Your task to perform on an android device: Open network settings Image 0: 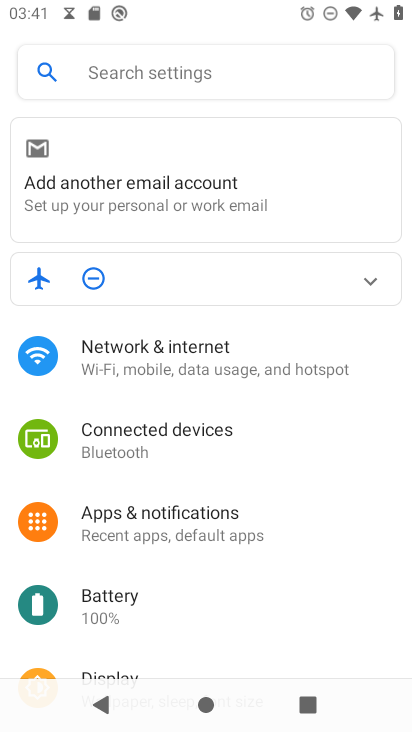
Step 0: press home button
Your task to perform on an android device: Open network settings Image 1: 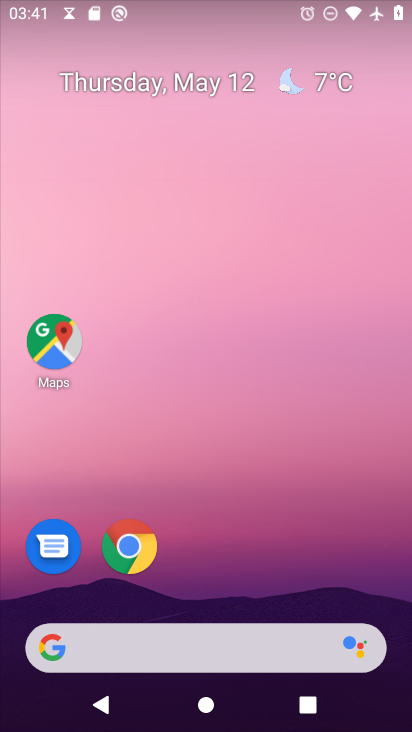
Step 1: drag from (143, 594) to (195, 184)
Your task to perform on an android device: Open network settings Image 2: 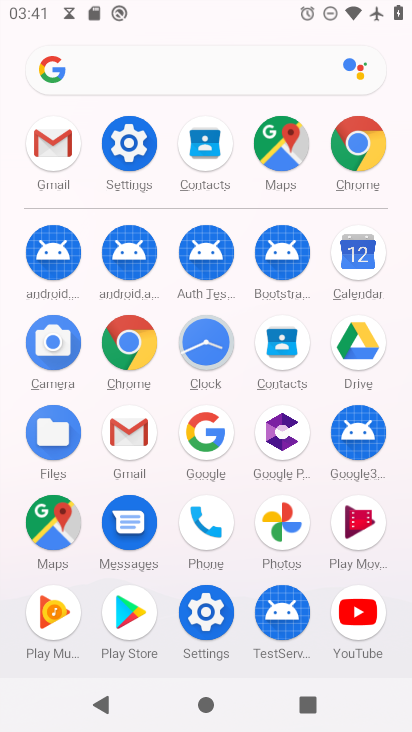
Step 2: click (130, 151)
Your task to perform on an android device: Open network settings Image 3: 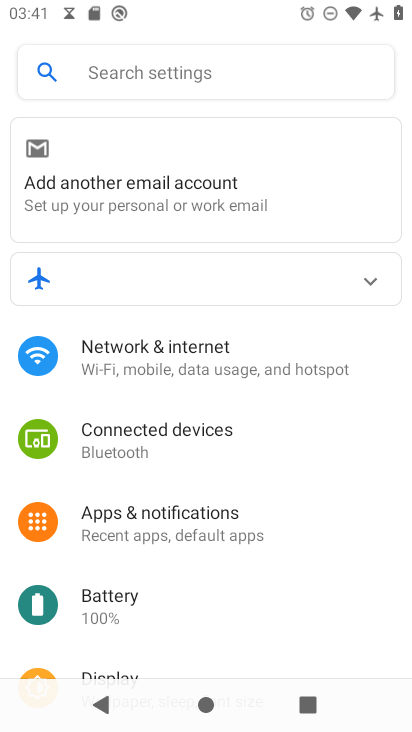
Step 3: click (169, 352)
Your task to perform on an android device: Open network settings Image 4: 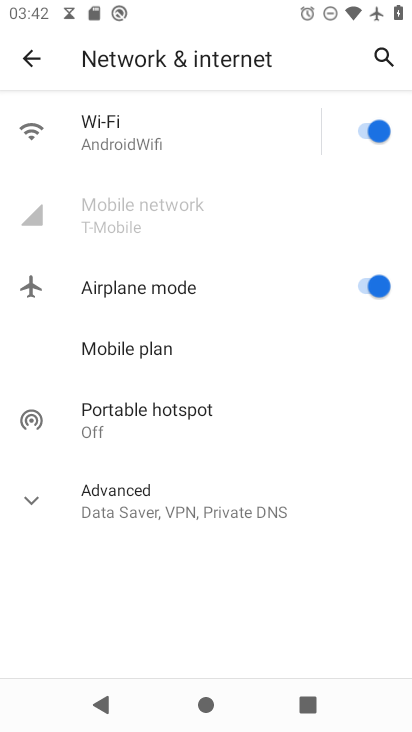
Step 4: task complete